Your task to perform on an android device: Empty the shopping cart on bestbuy.com. Search for "logitech g pro" on bestbuy.com, select the first entry, add it to the cart, then select checkout. Image 0: 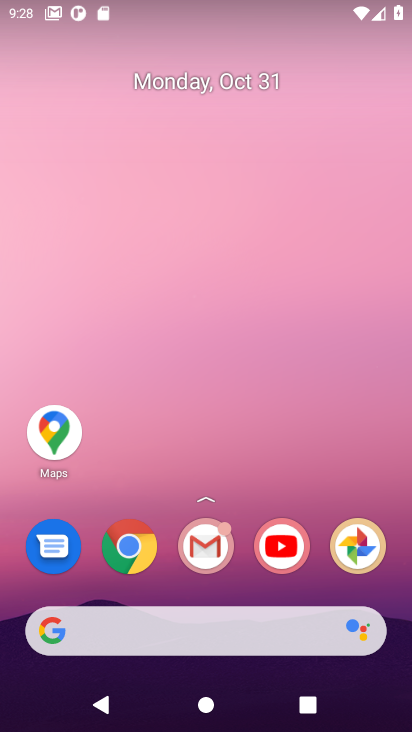
Step 0: drag from (130, 568) to (241, 17)
Your task to perform on an android device: Empty the shopping cart on bestbuy.com. Search for "logitech g pro" on bestbuy.com, select the first entry, add it to the cart, then select checkout. Image 1: 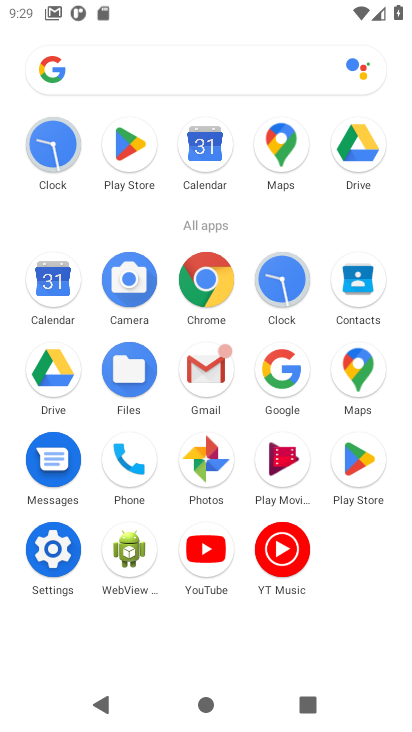
Step 1: click (191, 278)
Your task to perform on an android device: Empty the shopping cart on bestbuy.com. Search for "logitech g pro" on bestbuy.com, select the first entry, add it to the cart, then select checkout. Image 2: 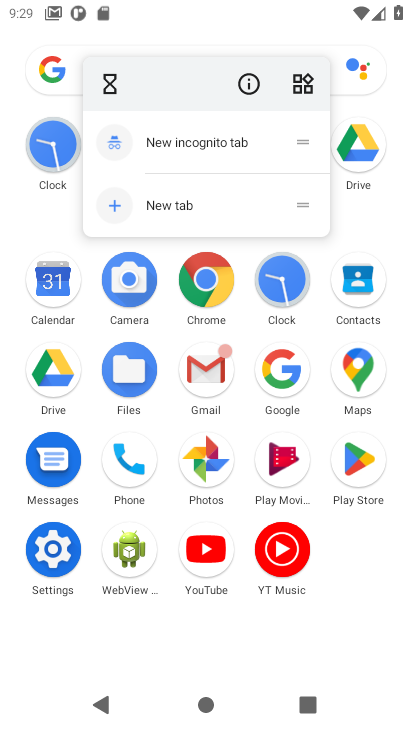
Step 2: click (189, 273)
Your task to perform on an android device: Empty the shopping cart on bestbuy.com. Search for "logitech g pro" on bestbuy.com, select the first entry, add it to the cart, then select checkout. Image 3: 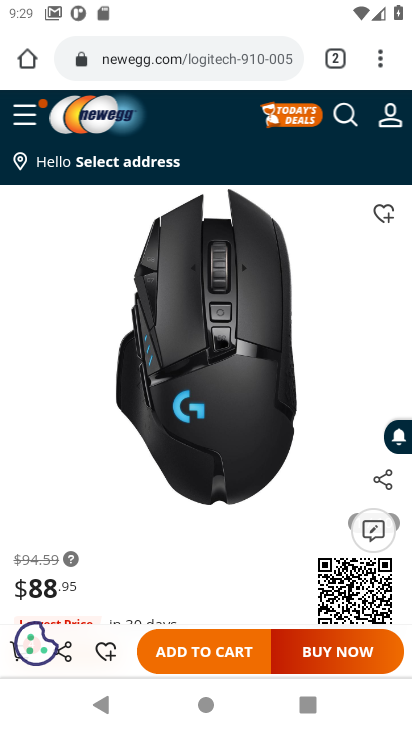
Step 3: click (147, 75)
Your task to perform on an android device: Empty the shopping cart on bestbuy.com. Search for "logitech g pro" on bestbuy.com, select the first entry, add it to the cart, then select checkout. Image 4: 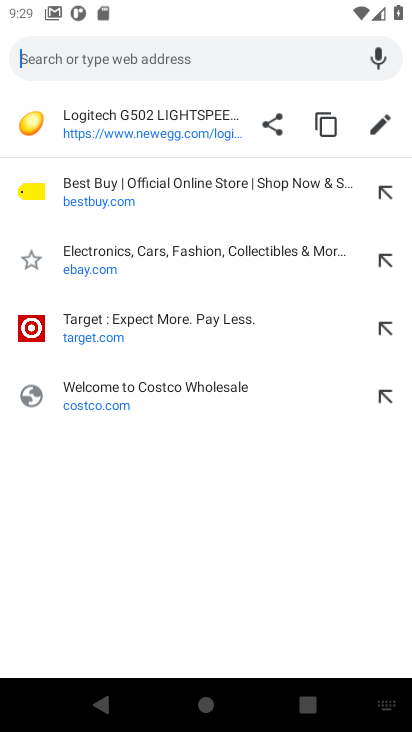
Step 4: type "bestbuy.com."
Your task to perform on an android device: Empty the shopping cart on bestbuy.com. Search for "logitech g pro" on bestbuy.com, select the first entry, add it to the cart, then select checkout. Image 5: 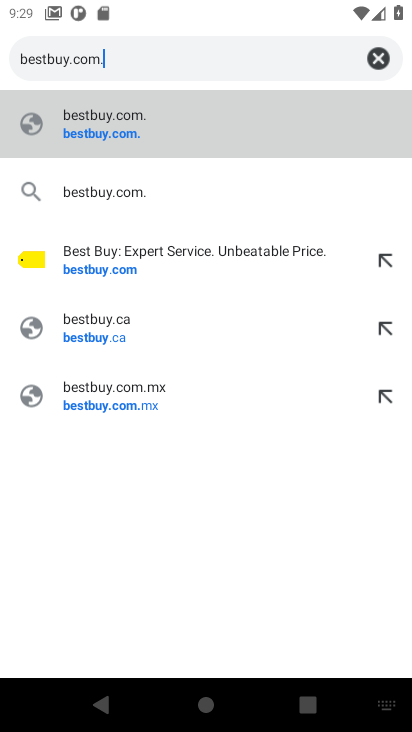
Step 5: press enter
Your task to perform on an android device: Empty the shopping cart on bestbuy.com. Search for "logitech g pro" on bestbuy.com, select the first entry, add it to the cart, then select checkout. Image 6: 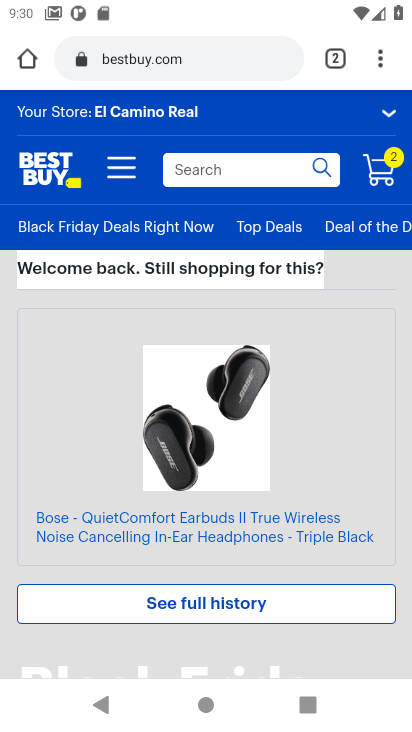
Step 6: click (386, 172)
Your task to perform on an android device: Empty the shopping cart on bestbuy.com. Search for "logitech g pro" on bestbuy.com, select the first entry, add it to the cart, then select checkout. Image 7: 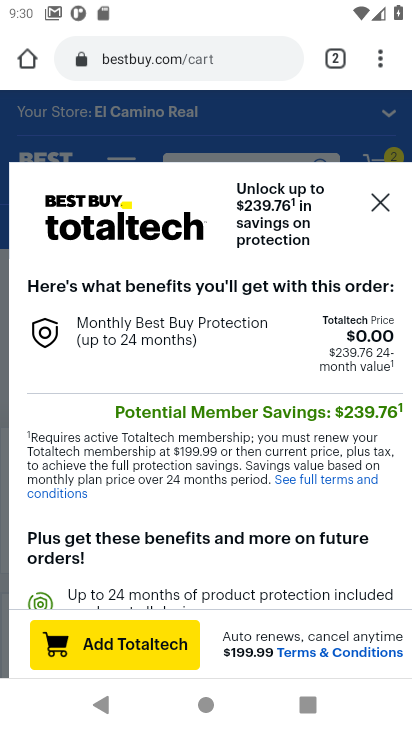
Step 7: click (375, 197)
Your task to perform on an android device: Empty the shopping cart on bestbuy.com. Search for "logitech g pro" on bestbuy.com, select the first entry, add it to the cart, then select checkout. Image 8: 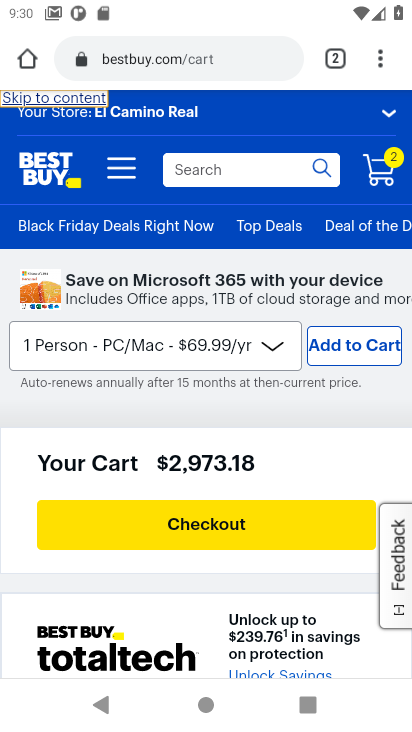
Step 8: drag from (242, 473) to (178, 273)
Your task to perform on an android device: Empty the shopping cart on bestbuy.com. Search for "logitech g pro" on bestbuy.com, select the first entry, add it to the cart, then select checkout. Image 9: 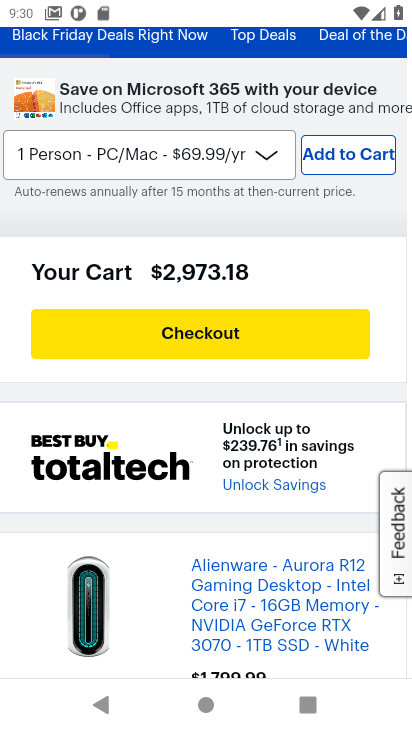
Step 9: drag from (176, 474) to (130, 242)
Your task to perform on an android device: Empty the shopping cart on bestbuy.com. Search for "logitech g pro" on bestbuy.com, select the first entry, add it to the cart, then select checkout. Image 10: 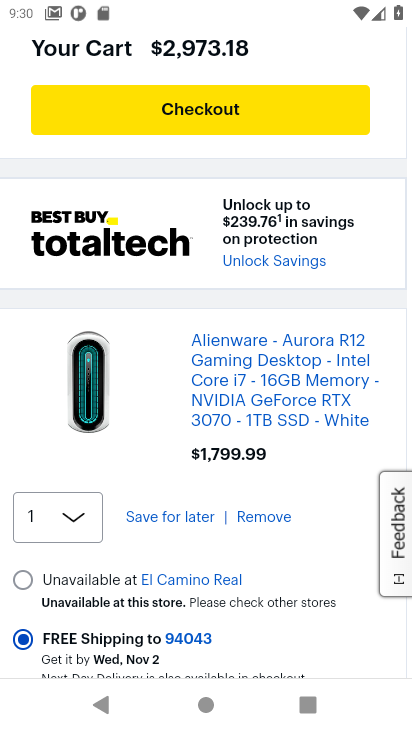
Step 10: click (271, 517)
Your task to perform on an android device: Empty the shopping cart on bestbuy.com. Search for "logitech g pro" on bestbuy.com, select the first entry, add it to the cart, then select checkout. Image 11: 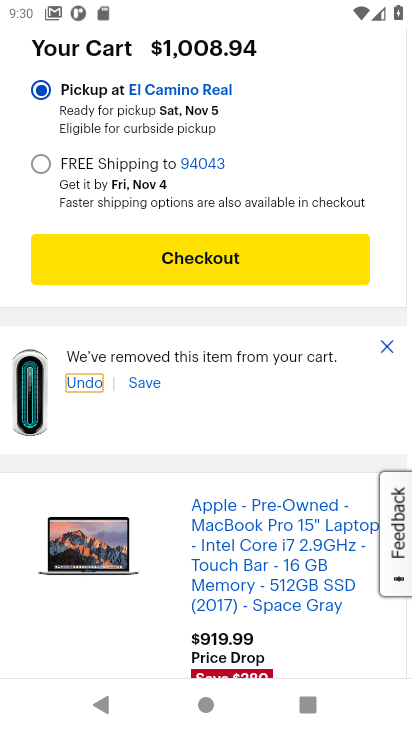
Step 11: drag from (245, 581) to (179, 288)
Your task to perform on an android device: Empty the shopping cart on bestbuy.com. Search for "logitech g pro" on bestbuy.com, select the first entry, add it to the cart, then select checkout. Image 12: 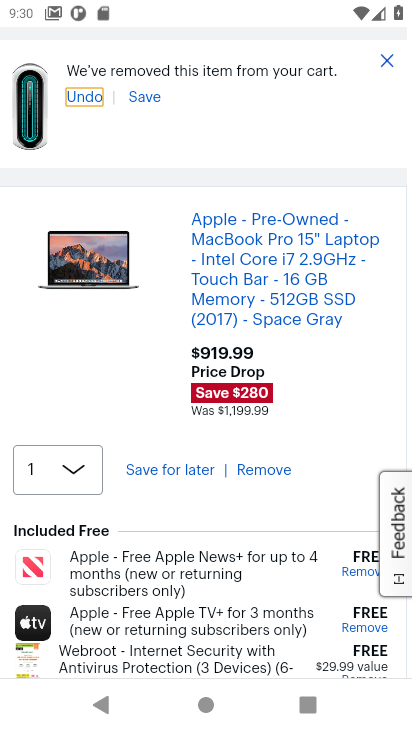
Step 12: drag from (215, 558) to (196, 454)
Your task to perform on an android device: Empty the shopping cart on bestbuy.com. Search for "logitech g pro" on bestbuy.com, select the first entry, add it to the cart, then select checkout. Image 13: 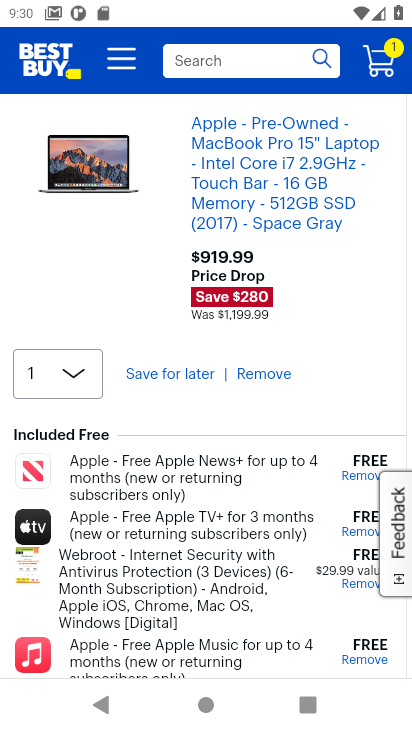
Step 13: click (249, 367)
Your task to perform on an android device: Empty the shopping cart on bestbuy.com. Search for "logitech g pro" on bestbuy.com, select the first entry, add it to the cart, then select checkout. Image 14: 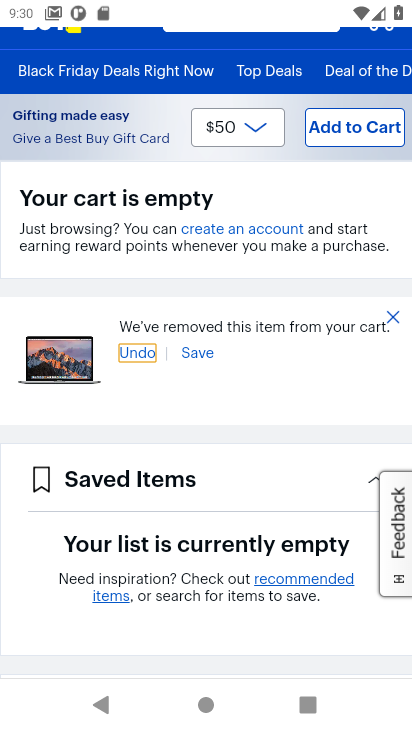
Step 14: drag from (217, 224) to (287, 513)
Your task to perform on an android device: Empty the shopping cart on bestbuy.com. Search for "logitech g pro" on bestbuy.com, select the first entry, add it to the cart, then select checkout. Image 15: 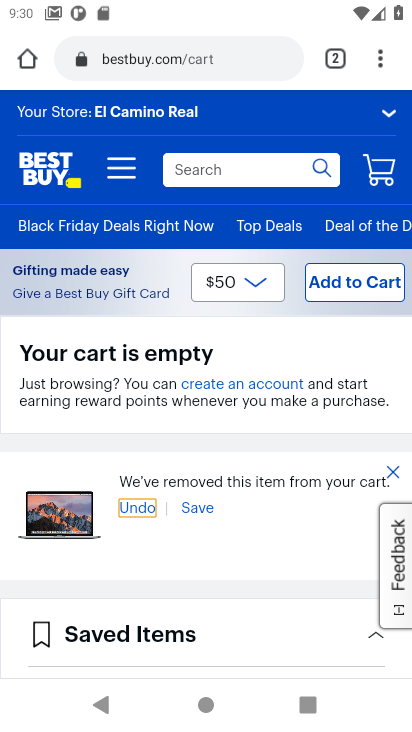
Step 15: click (210, 166)
Your task to perform on an android device: Empty the shopping cart on bestbuy.com. Search for "logitech g pro" on bestbuy.com, select the first entry, add it to the cart, then select checkout. Image 16: 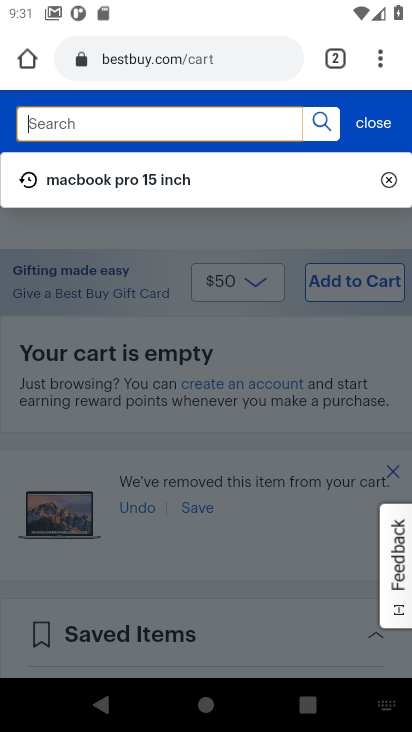
Step 16: type "logitech g pro"
Your task to perform on an android device: Empty the shopping cart on bestbuy.com. Search for "logitech g pro" on bestbuy.com, select the first entry, add it to the cart, then select checkout. Image 17: 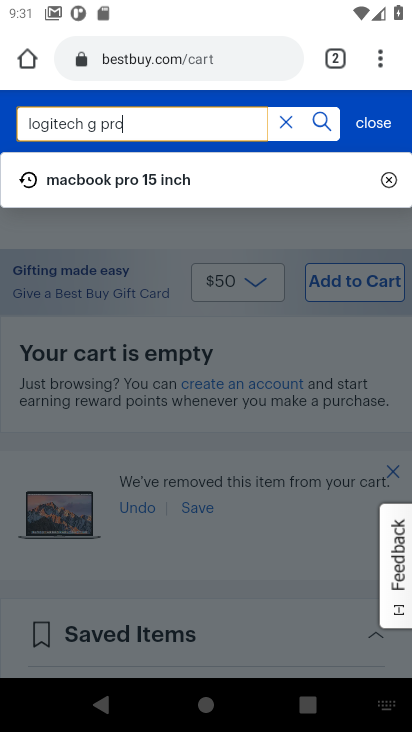
Step 17: press enter
Your task to perform on an android device: Empty the shopping cart on bestbuy.com. Search for "logitech g pro" on bestbuy.com, select the first entry, add it to the cart, then select checkout. Image 18: 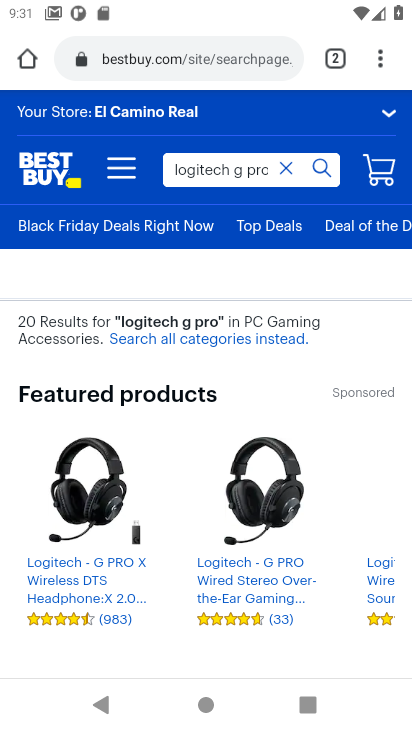
Step 18: drag from (134, 506) to (66, 257)
Your task to perform on an android device: Empty the shopping cart on bestbuy.com. Search for "logitech g pro" on bestbuy.com, select the first entry, add it to the cart, then select checkout. Image 19: 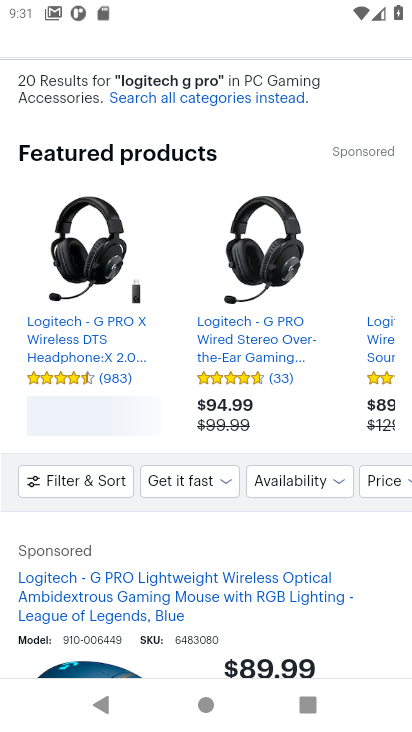
Step 19: drag from (66, 252) to (125, 515)
Your task to perform on an android device: Empty the shopping cart on bestbuy.com. Search for "logitech g pro" on bestbuy.com, select the first entry, add it to the cart, then select checkout. Image 20: 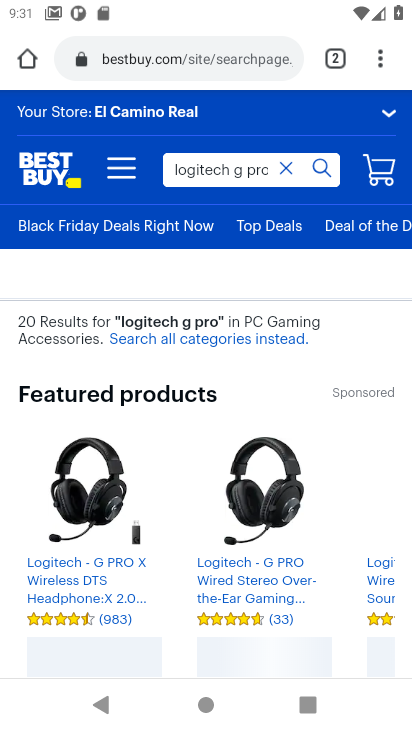
Step 20: click (92, 467)
Your task to perform on an android device: Empty the shopping cart on bestbuy.com. Search for "logitech g pro" on bestbuy.com, select the first entry, add it to the cart, then select checkout. Image 21: 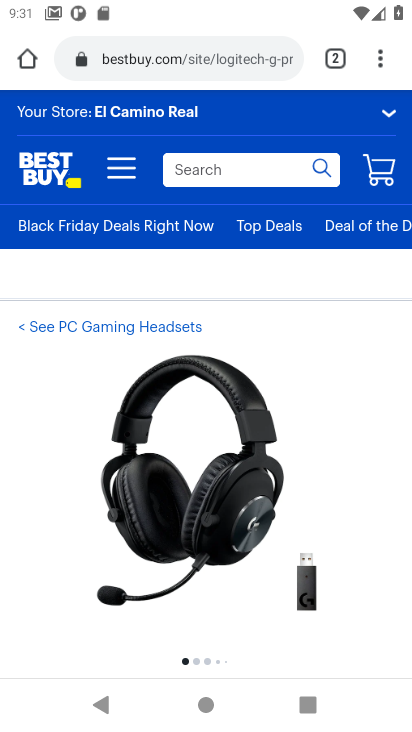
Step 21: drag from (116, 528) to (20, 233)
Your task to perform on an android device: Empty the shopping cart on bestbuy.com. Search for "logitech g pro" on bestbuy.com, select the first entry, add it to the cart, then select checkout. Image 22: 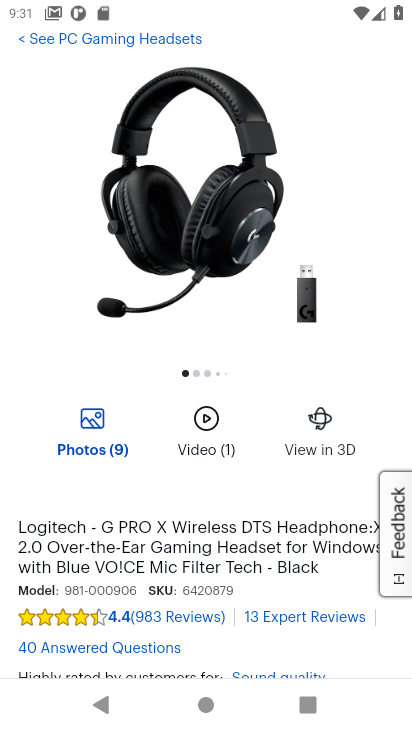
Step 22: drag from (134, 519) to (99, 272)
Your task to perform on an android device: Empty the shopping cart on bestbuy.com. Search for "logitech g pro" on bestbuy.com, select the first entry, add it to the cart, then select checkout. Image 23: 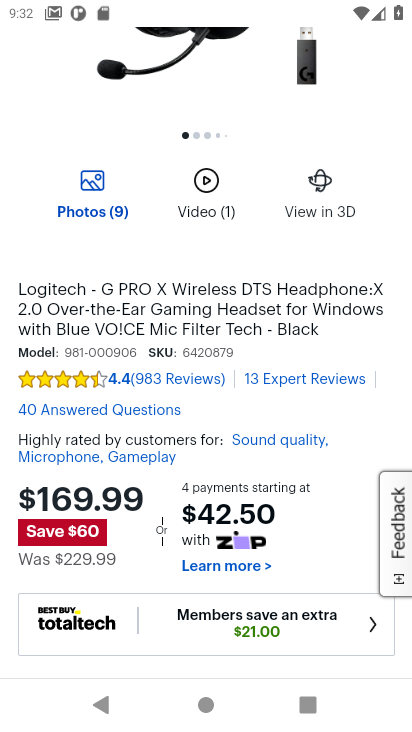
Step 23: drag from (158, 456) to (100, 311)
Your task to perform on an android device: Empty the shopping cart on bestbuy.com. Search for "logitech g pro" on bestbuy.com, select the first entry, add it to the cart, then select checkout. Image 24: 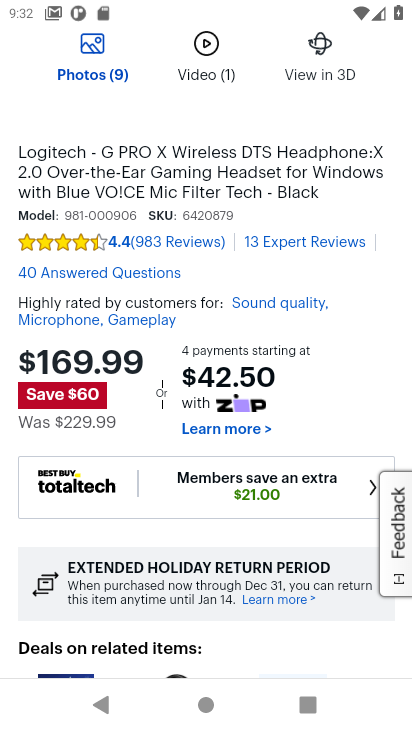
Step 24: drag from (135, 558) to (105, 250)
Your task to perform on an android device: Empty the shopping cart on bestbuy.com. Search for "logitech g pro" on bestbuy.com, select the first entry, add it to the cart, then select checkout. Image 25: 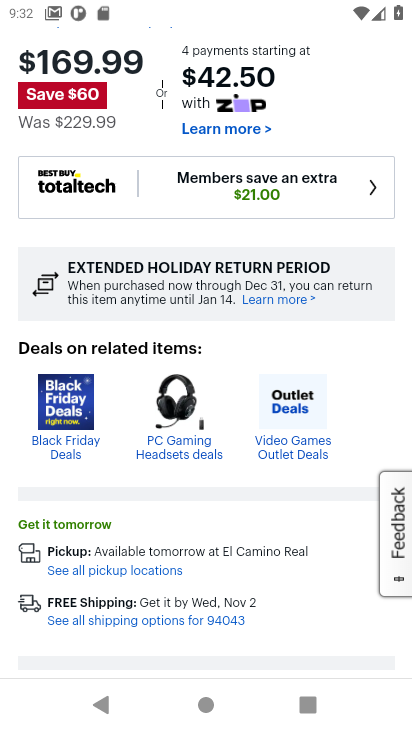
Step 25: drag from (156, 538) to (83, 218)
Your task to perform on an android device: Empty the shopping cart on bestbuy.com. Search for "logitech g pro" on bestbuy.com, select the first entry, add it to the cart, then select checkout. Image 26: 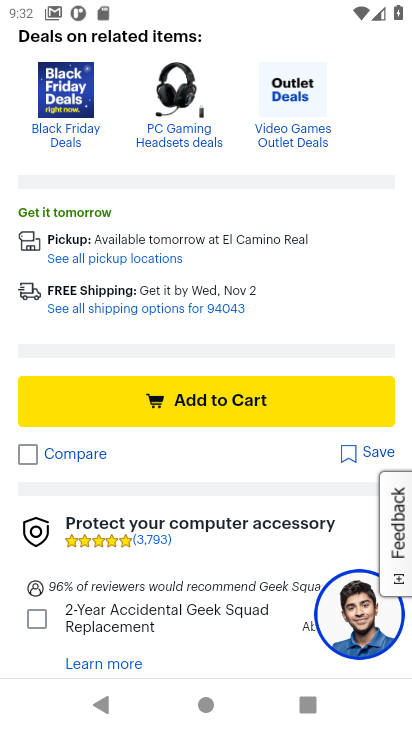
Step 26: click (152, 397)
Your task to perform on an android device: Empty the shopping cart on bestbuy.com. Search for "logitech g pro" on bestbuy.com, select the first entry, add it to the cart, then select checkout. Image 27: 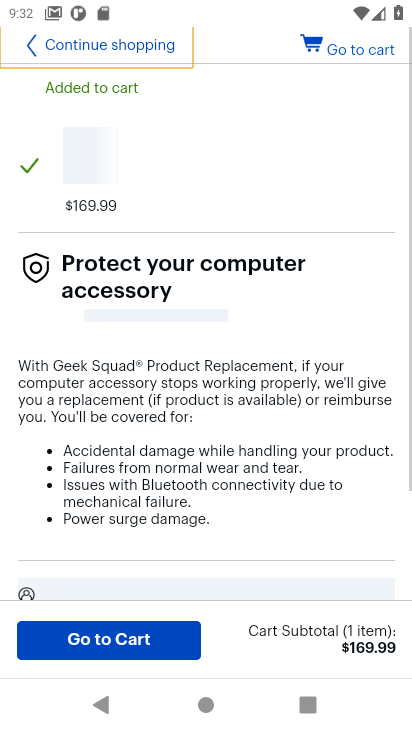
Step 27: click (152, 632)
Your task to perform on an android device: Empty the shopping cart on bestbuy.com. Search for "logitech g pro" on bestbuy.com, select the first entry, add it to the cart, then select checkout. Image 28: 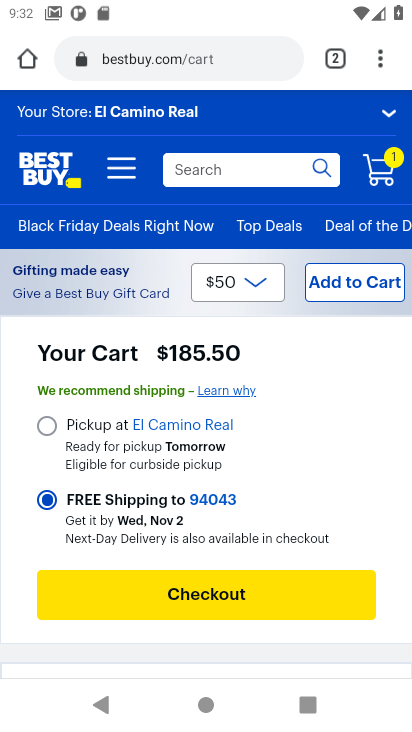
Step 28: click (133, 593)
Your task to perform on an android device: Empty the shopping cart on bestbuy.com. Search for "logitech g pro" on bestbuy.com, select the first entry, add it to the cart, then select checkout. Image 29: 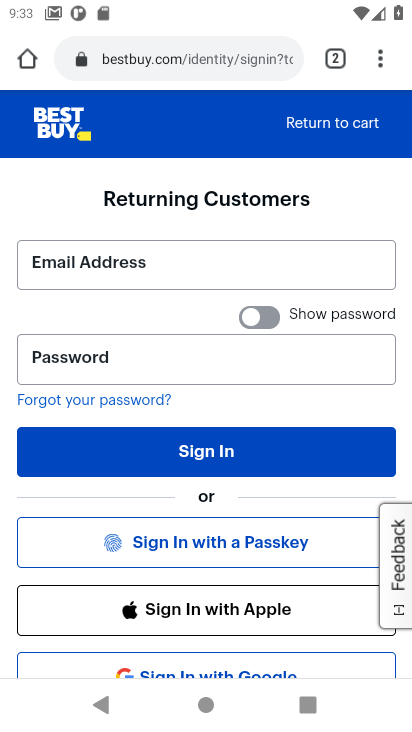
Step 29: task complete